Your task to perform on an android device: turn off priority inbox in the gmail app Image 0: 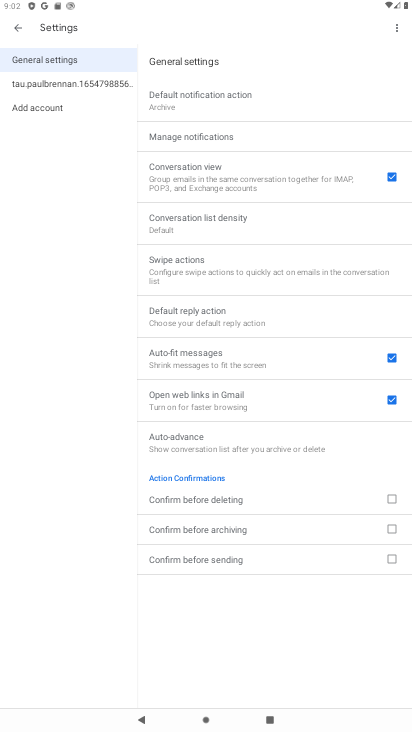
Step 0: drag from (296, 685) to (232, 206)
Your task to perform on an android device: turn off priority inbox in the gmail app Image 1: 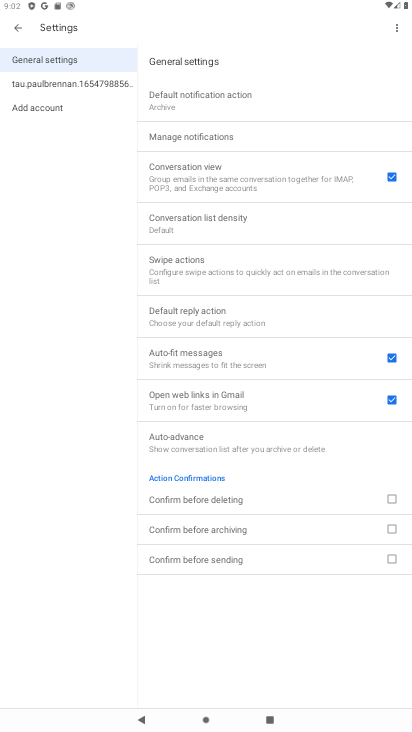
Step 1: click (58, 80)
Your task to perform on an android device: turn off priority inbox in the gmail app Image 2: 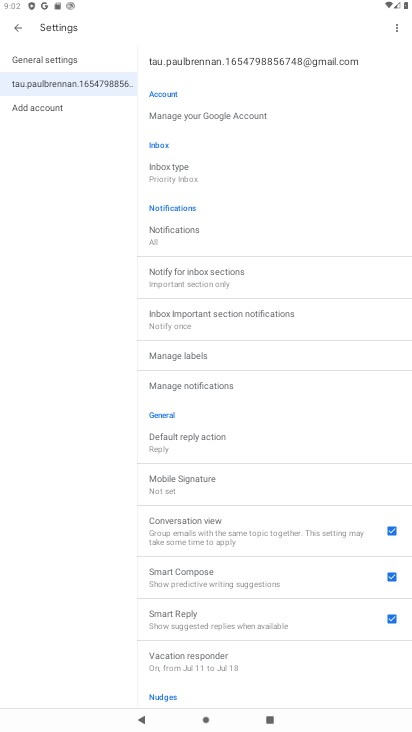
Step 2: click (198, 172)
Your task to perform on an android device: turn off priority inbox in the gmail app Image 3: 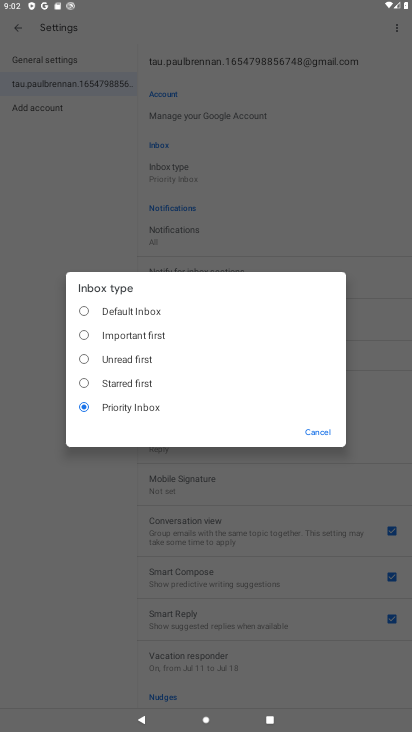
Step 3: click (126, 314)
Your task to perform on an android device: turn off priority inbox in the gmail app Image 4: 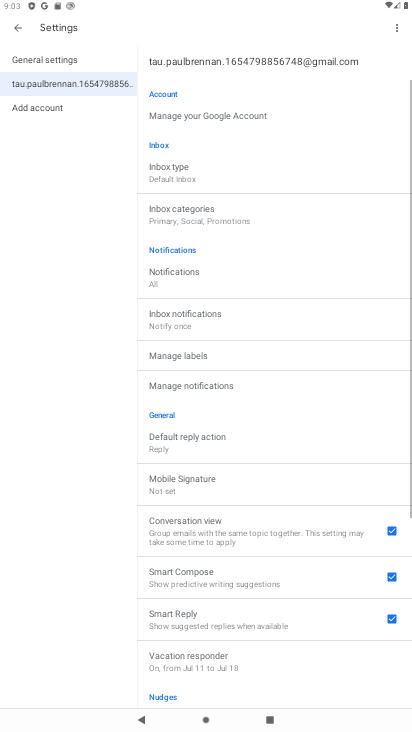
Step 4: task complete